Your task to perform on an android device: Open Chrome and go to settings Image 0: 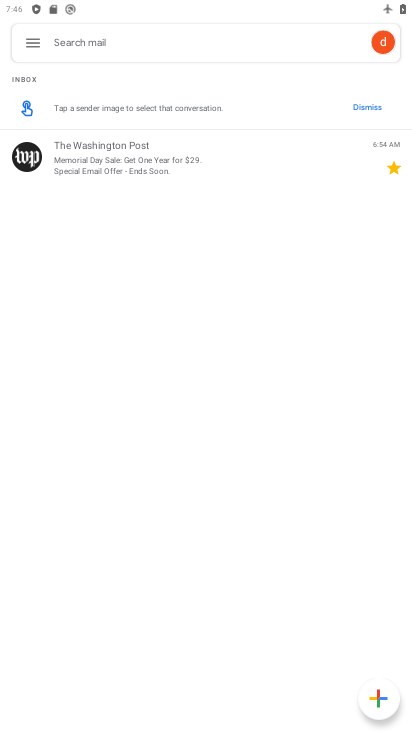
Step 0: press home button
Your task to perform on an android device: Open Chrome and go to settings Image 1: 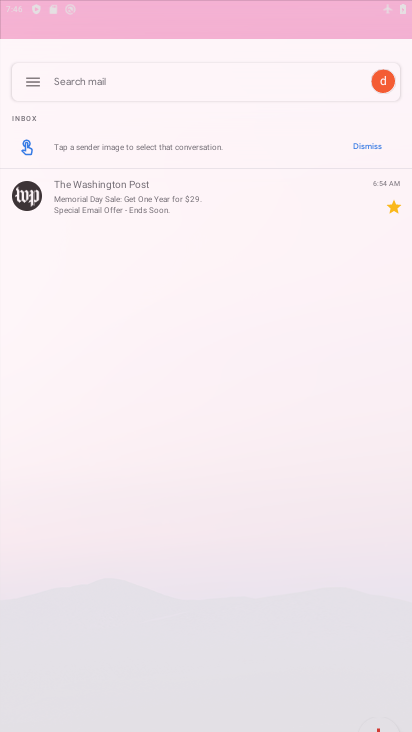
Step 1: drag from (188, 567) to (357, 10)
Your task to perform on an android device: Open Chrome and go to settings Image 2: 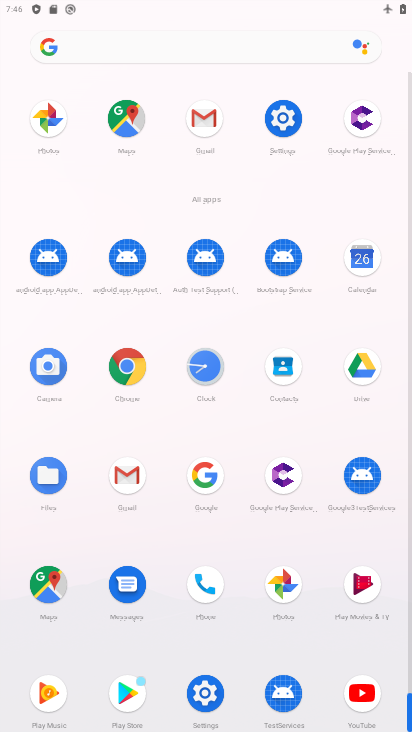
Step 2: click (127, 362)
Your task to perform on an android device: Open Chrome and go to settings Image 3: 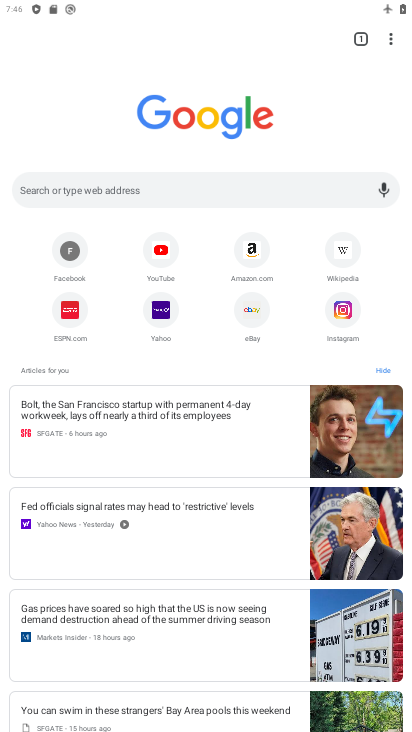
Step 3: click (394, 33)
Your task to perform on an android device: Open Chrome and go to settings Image 4: 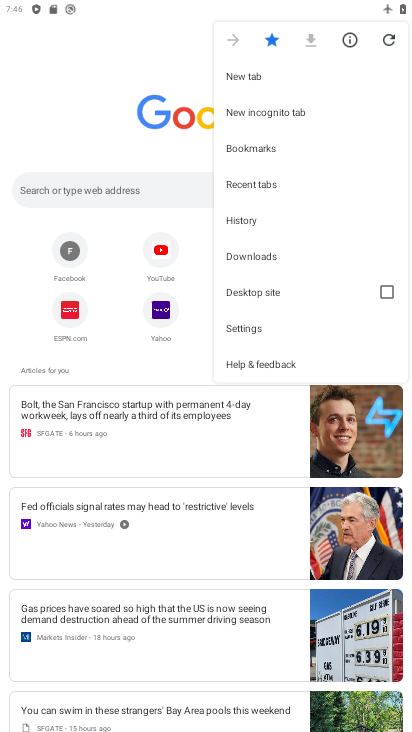
Step 4: click (260, 321)
Your task to perform on an android device: Open Chrome and go to settings Image 5: 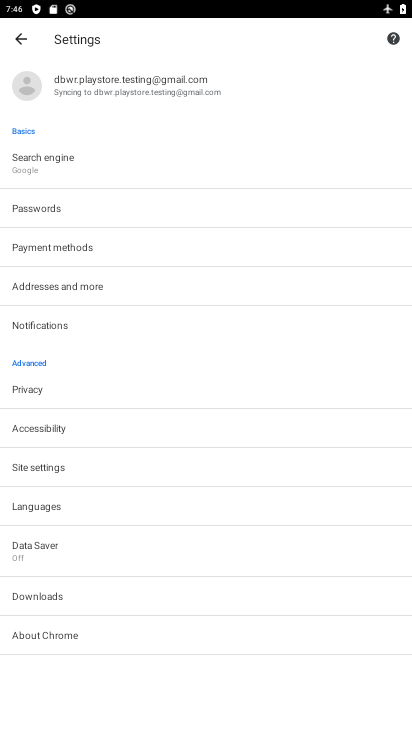
Step 5: task complete